Your task to perform on an android device: turn on improve location accuracy Image 0: 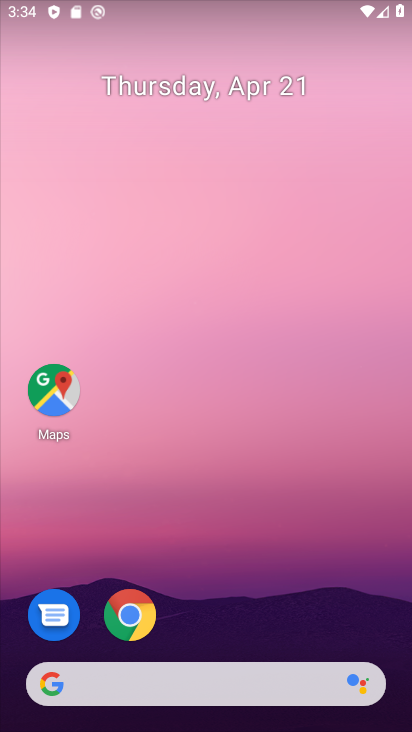
Step 0: drag from (193, 655) to (293, 176)
Your task to perform on an android device: turn on improve location accuracy Image 1: 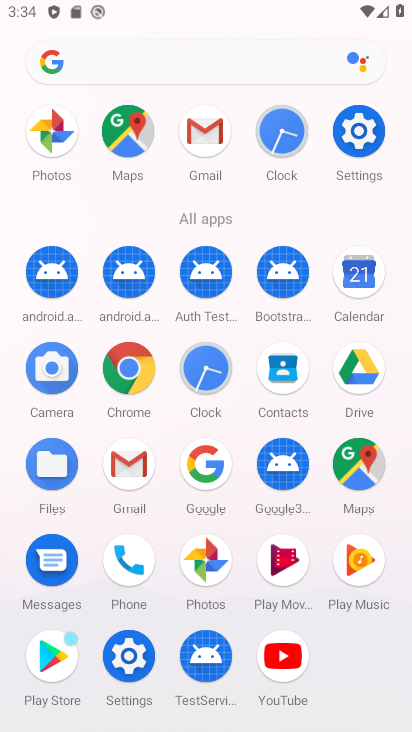
Step 1: click (127, 658)
Your task to perform on an android device: turn on improve location accuracy Image 2: 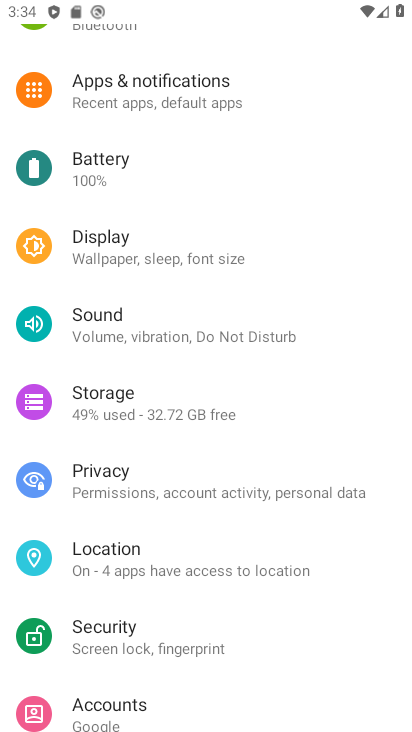
Step 2: drag from (207, 645) to (317, 372)
Your task to perform on an android device: turn on improve location accuracy Image 3: 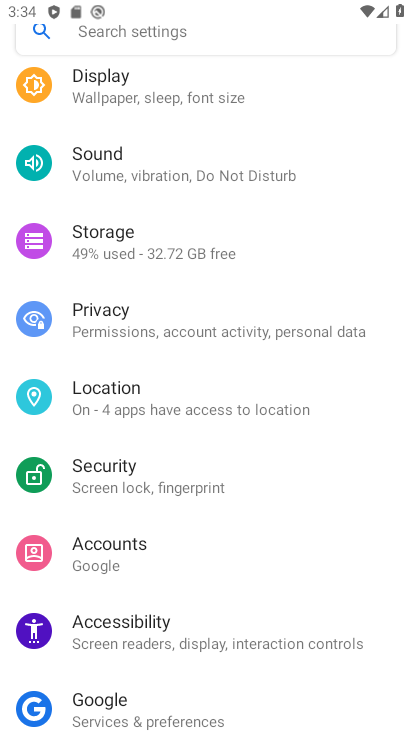
Step 3: click (236, 387)
Your task to perform on an android device: turn on improve location accuracy Image 4: 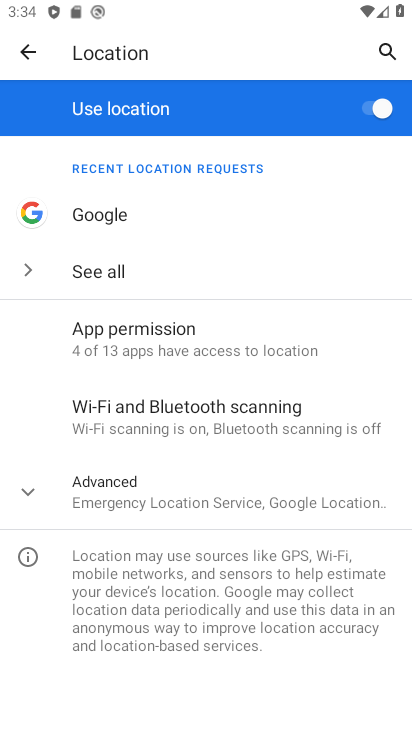
Step 4: click (184, 487)
Your task to perform on an android device: turn on improve location accuracy Image 5: 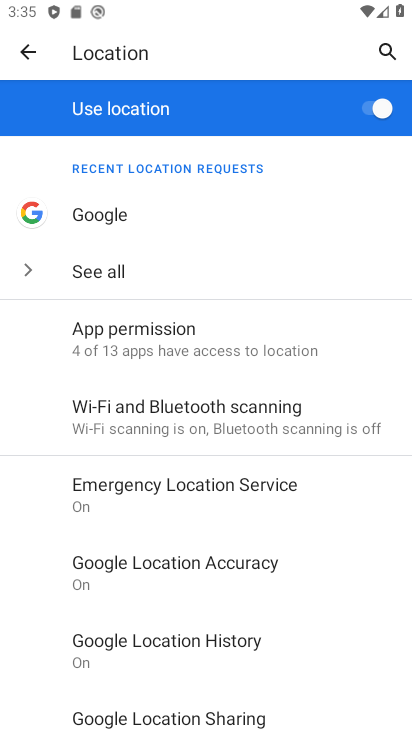
Step 5: drag from (144, 682) to (219, 441)
Your task to perform on an android device: turn on improve location accuracy Image 6: 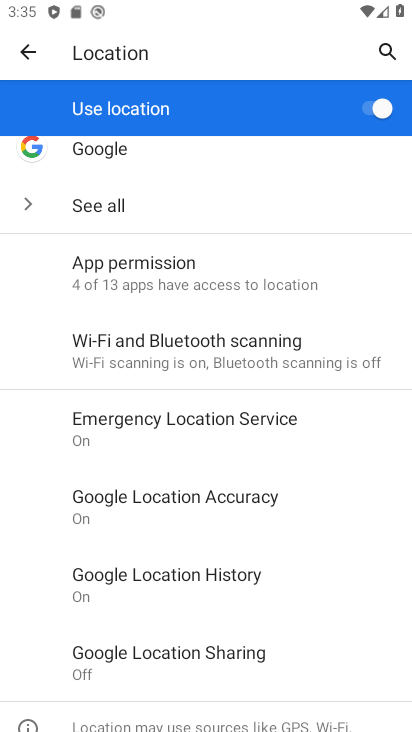
Step 6: click (213, 518)
Your task to perform on an android device: turn on improve location accuracy Image 7: 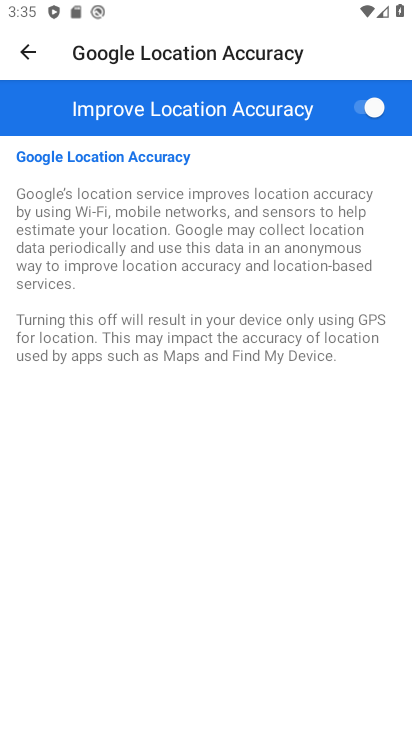
Step 7: task complete